Your task to perform on an android device: Go to Reddit.com Image 0: 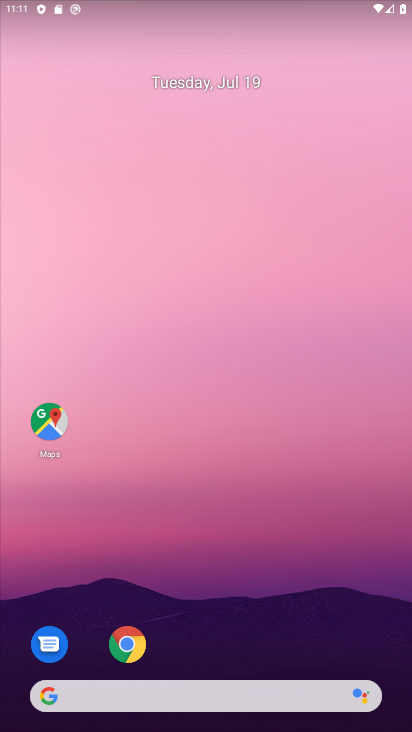
Step 0: click (126, 692)
Your task to perform on an android device: Go to Reddit.com Image 1: 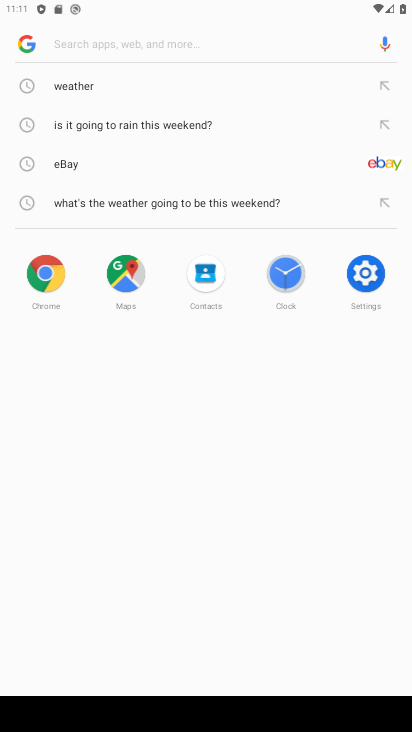
Step 1: type "Reddit.com"
Your task to perform on an android device: Go to Reddit.com Image 2: 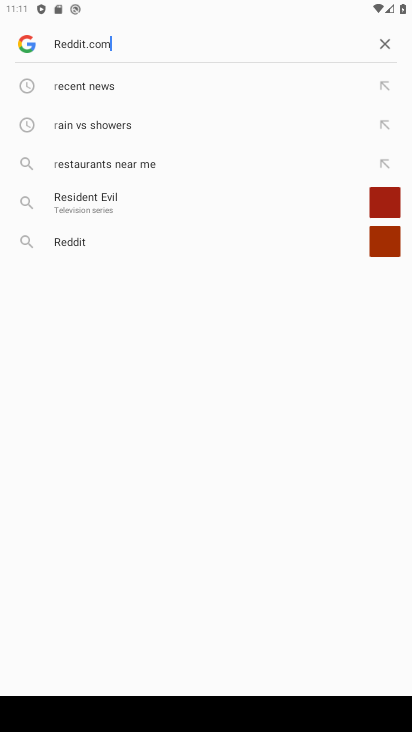
Step 2: type ""
Your task to perform on an android device: Go to Reddit.com Image 3: 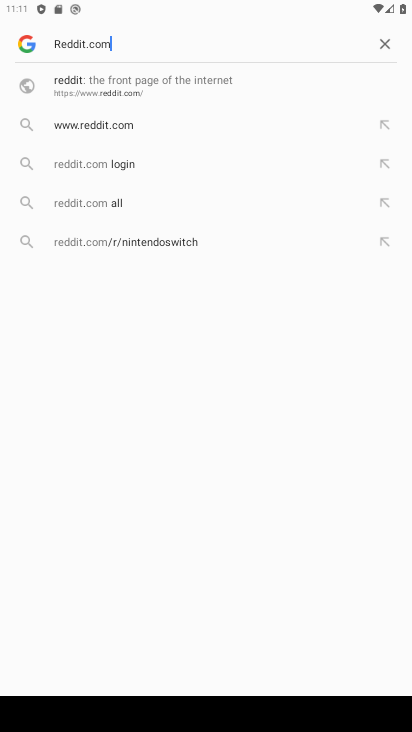
Step 3: type ""
Your task to perform on an android device: Go to Reddit.com Image 4: 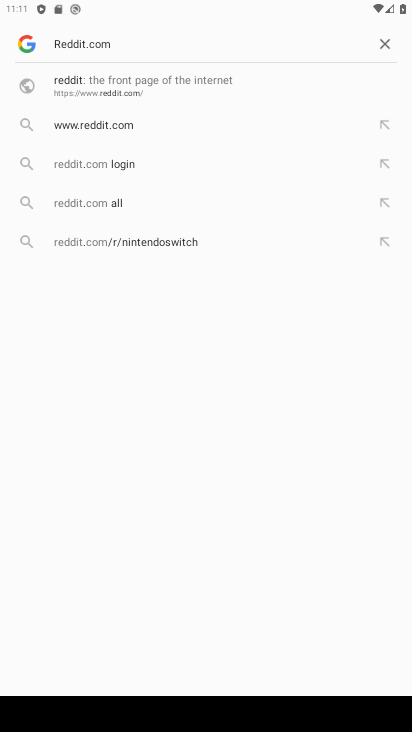
Step 4: type ""
Your task to perform on an android device: Go to Reddit.com Image 5: 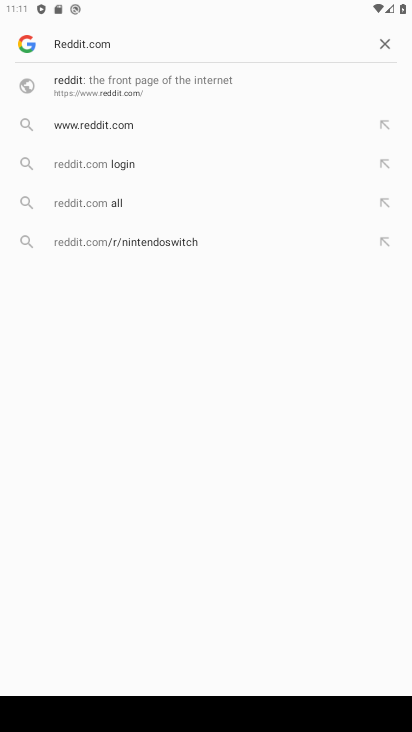
Step 5: task complete